Your task to perform on an android device: allow cookies in the chrome app Image 0: 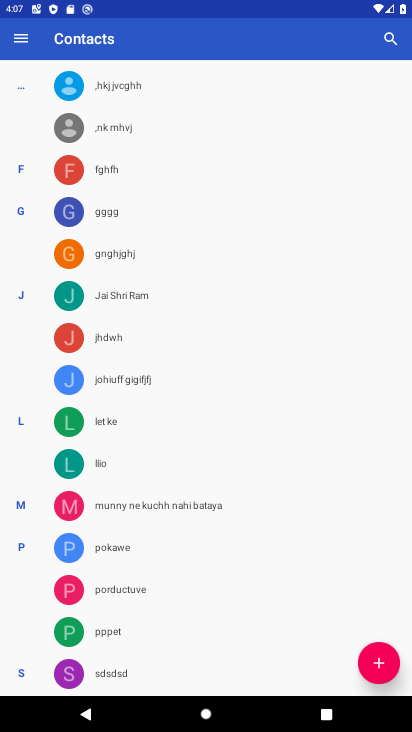
Step 0: press home button
Your task to perform on an android device: allow cookies in the chrome app Image 1: 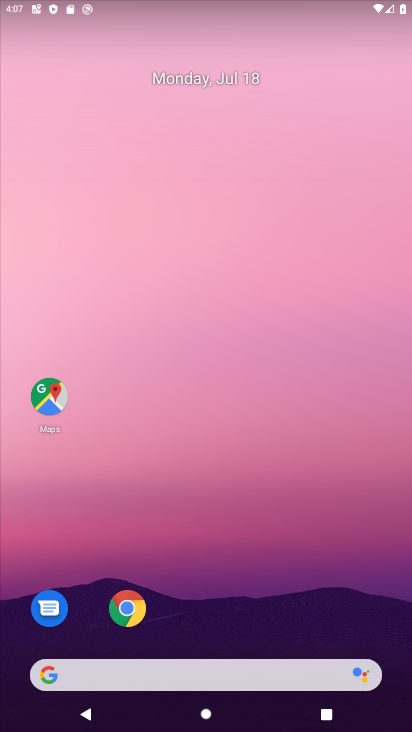
Step 1: click (128, 605)
Your task to perform on an android device: allow cookies in the chrome app Image 2: 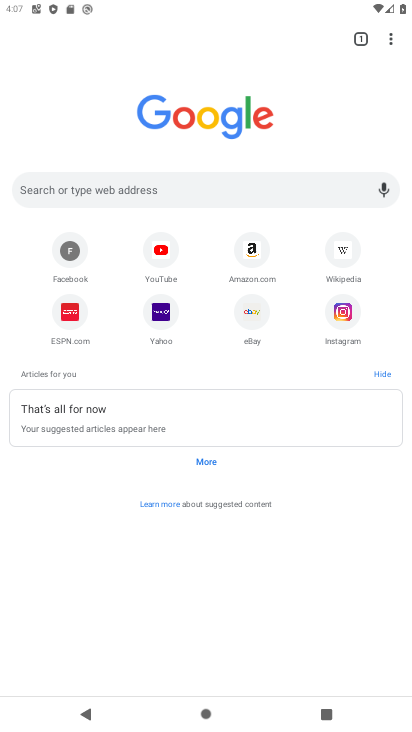
Step 2: click (148, 580)
Your task to perform on an android device: allow cookies in the chrome app Image 3: 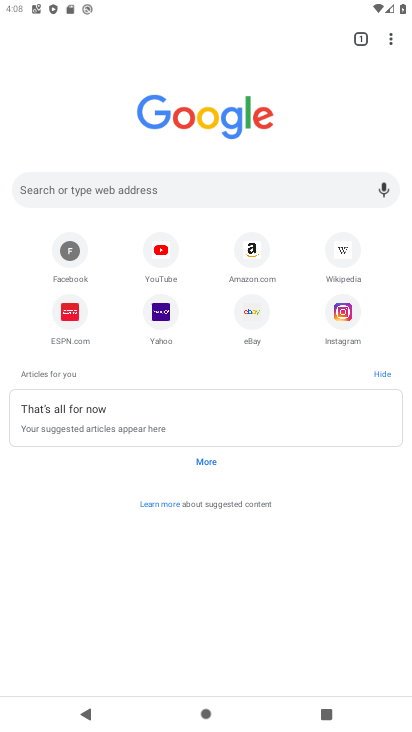
Step 3: click (368, 58)
Your task to perform on an android device: allow cookies in the chrome app Image 4: 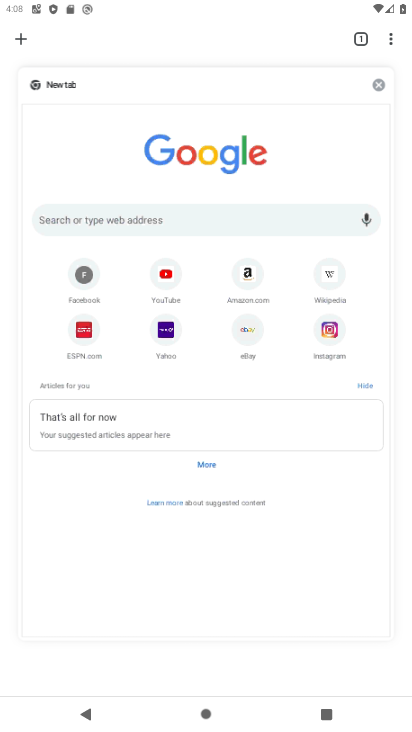
Step 4: click (372, 91)
Your task to perform on an android device: allow cookies in the chrome app Image 5: 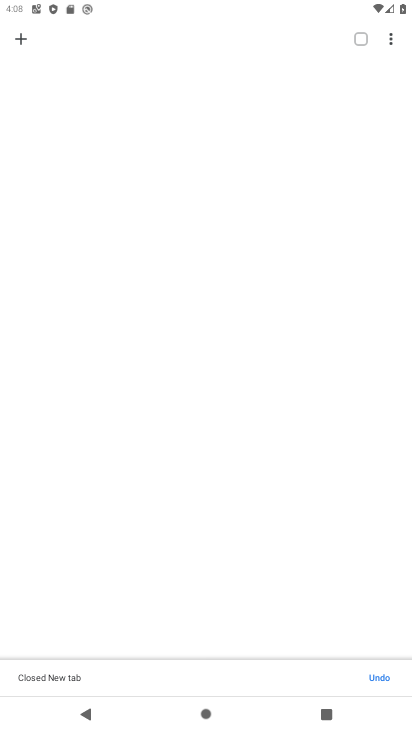
Step 5: click (391, 47)
Your task to perform on an android device: allow cookies in the chrome app Image 6: 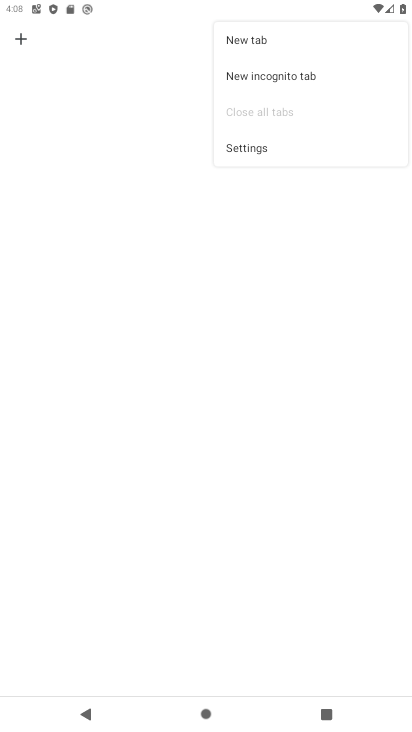
Step 6: click (279, 146)
Your task to perform on an android device: allow cookies in the chrome app Image 7: 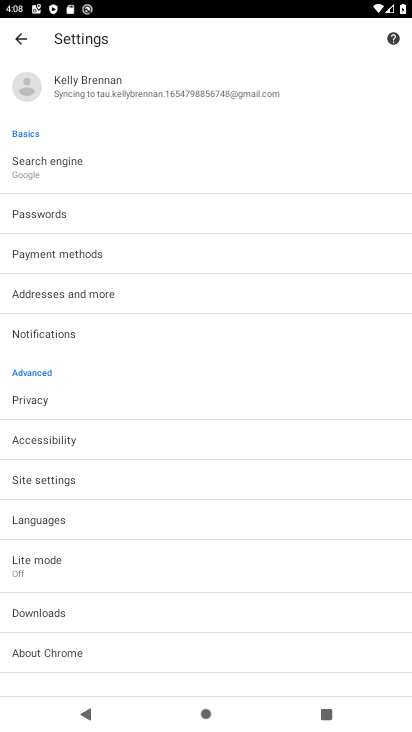
Step 7: click (84, 479)
Your task to perform on an android device: allow cookies in the chrome app Image 8: 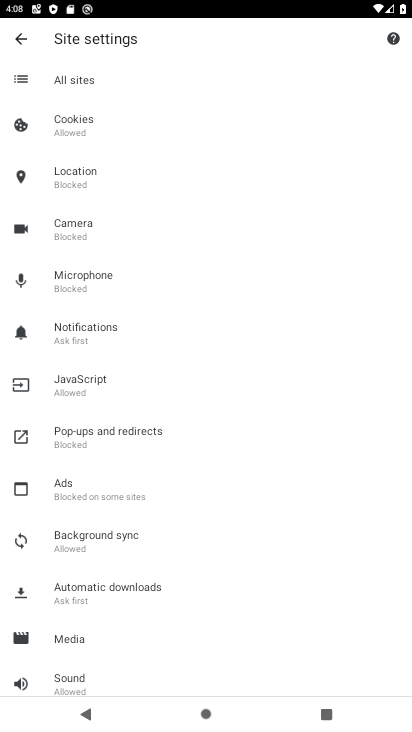
Step 8: click (92, 134)
Your task to perform on an android device: allow cookies in the chrome app Image 9: 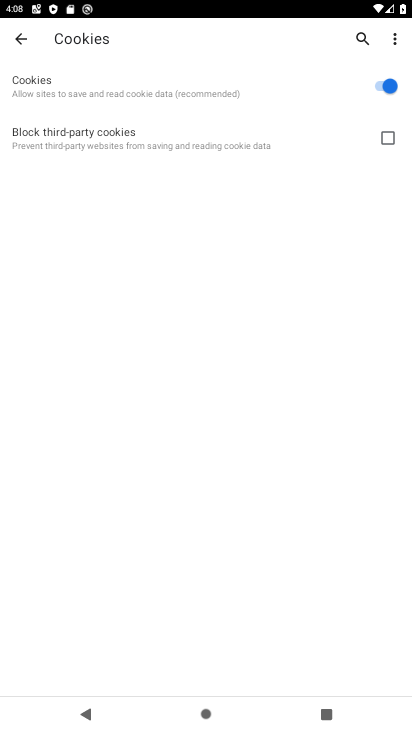
Step 9: task complete